Your task to perform on an android device: turn on the 24-hour format for clock Image 0: 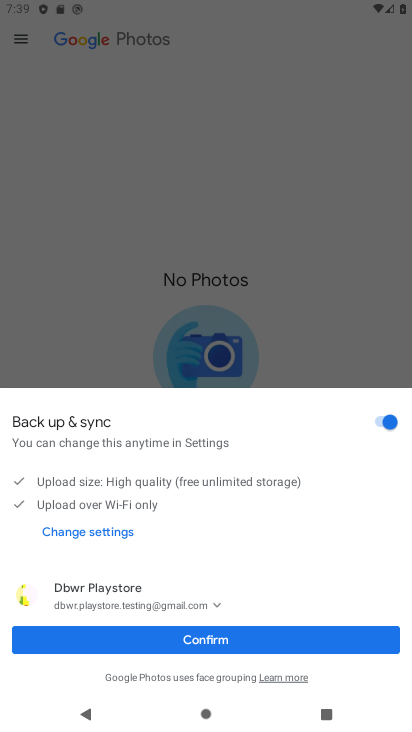
Step 0: press home button
Your task to perform on an android device: turn on the 24-hour format for clock Image 1: 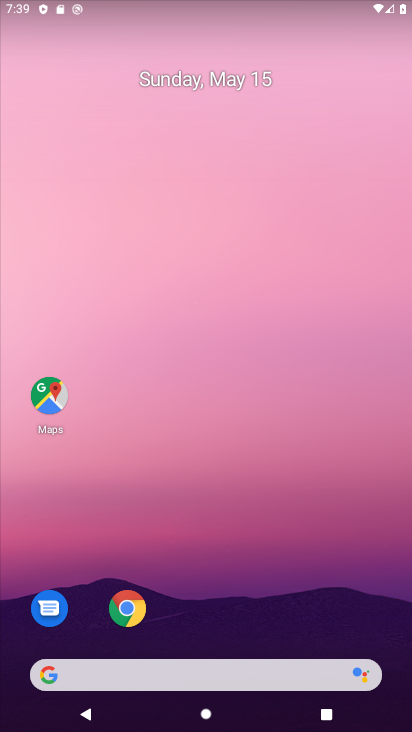
Step 1: drag from (215, 600) to (241, 325)
Your task to perform on an android device: turn on the 24-hour format for clock Image 2: 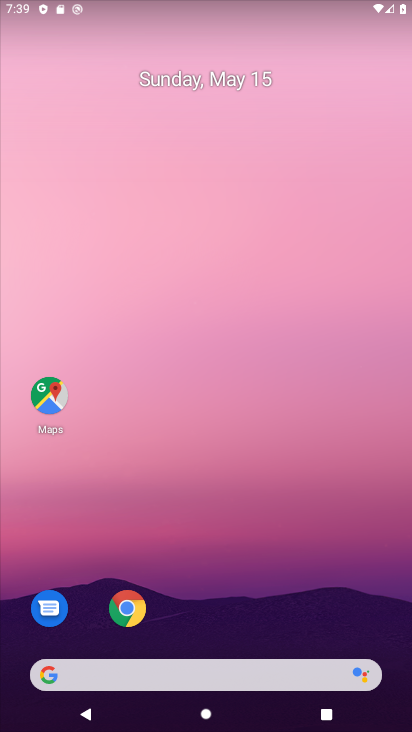
Step 2: drag from (227, 625) to (261, 302)
Your task to perform on an android device: turn on the 24-hour format for clock Image 3: 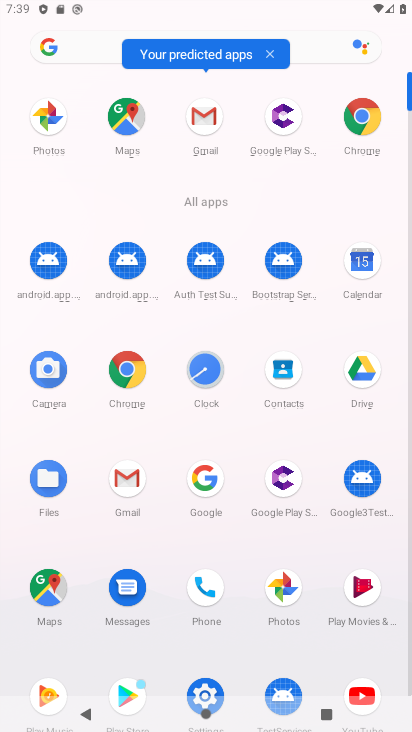
Step 3: click (202, 380)
Your task to perform on an android device: turn on the 24-hour format for clock Image 4: 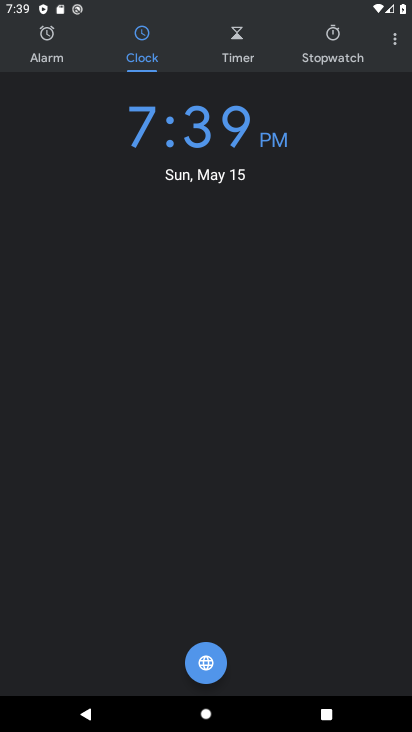
Step 4: click (388, 47)
Your task to perform on an android device: turn on the 24-hour format for clock Image 5: 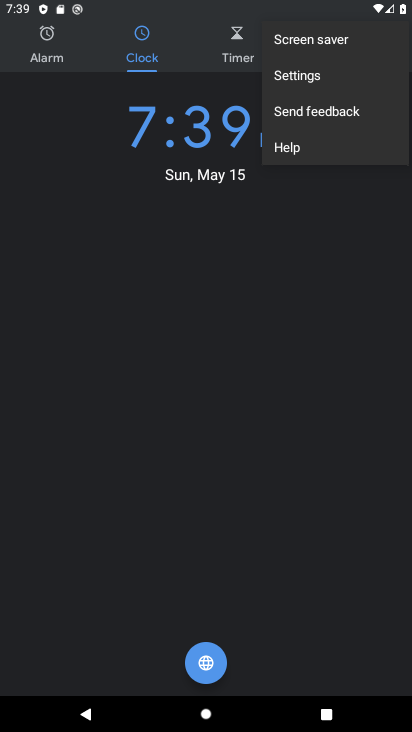
Step 5: click (320, 77)
Your task to perform on an android device: turn on the 24-hour format for clock Image 6: 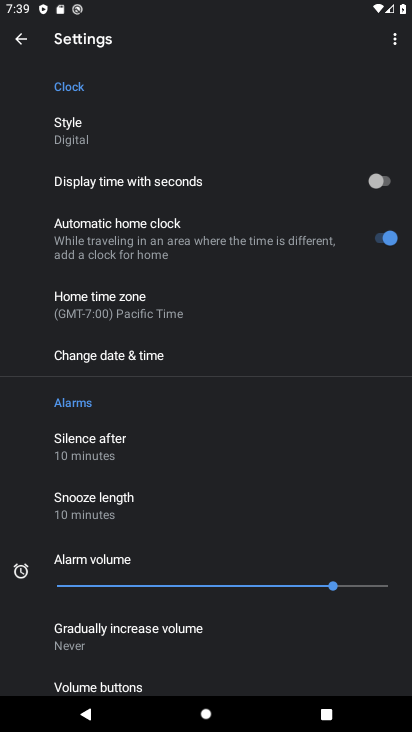
Step 6: click (150, 356)
Your task to perform on an android device: turn on the 24-hour format for clock Image 7: 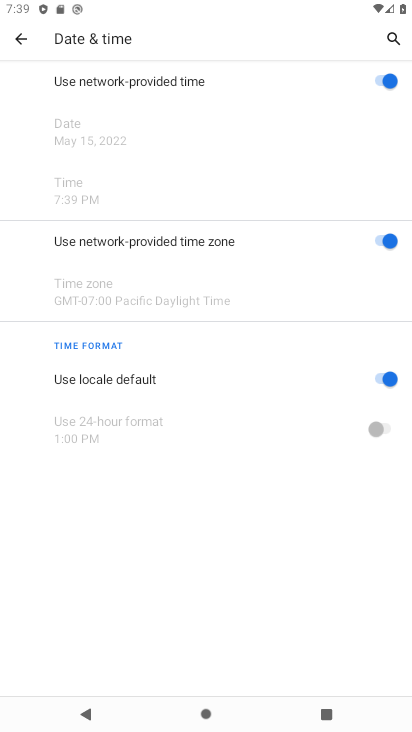
Step 7: click (385, 380)
Your task to perform on an android device: turn on the 24-hour format for clock Image 8: 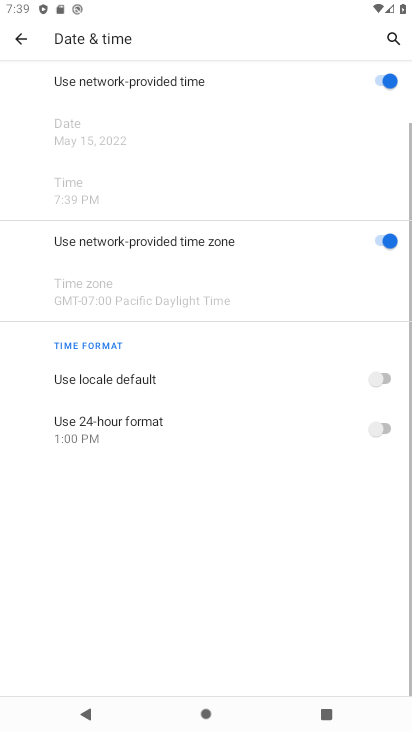
Step 8: click (385, 431)
Your task to perform on an android device: turn on the 24-hour format for clock Image 9: 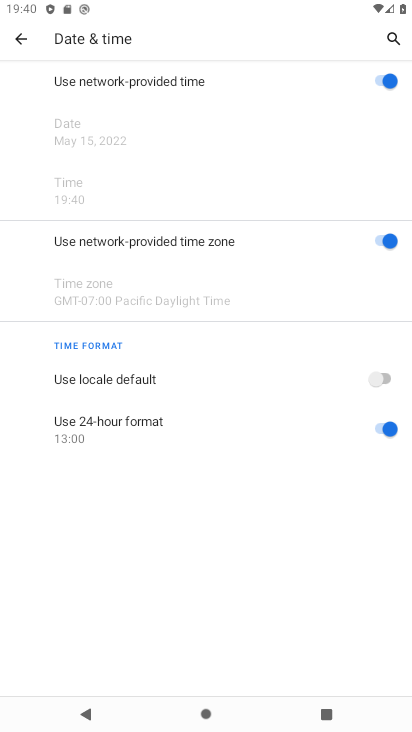
Step 9: task complete